Your task to perform on an android device: visit the assistant section in the google photos Image 0: 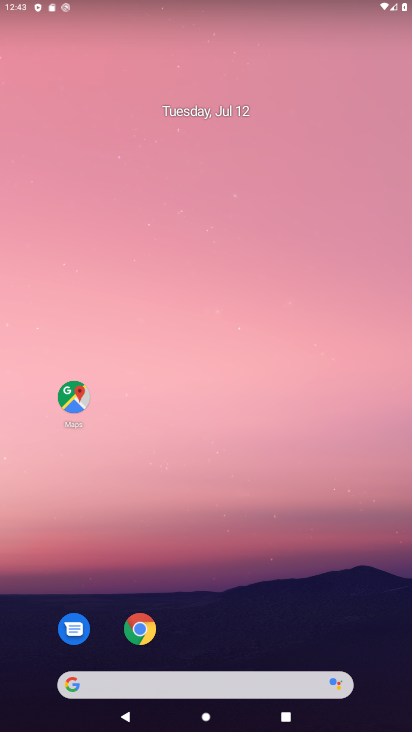
Step 0: press home button
Your task to perform on an android device: visit the assistant section in the google photos Image 1: 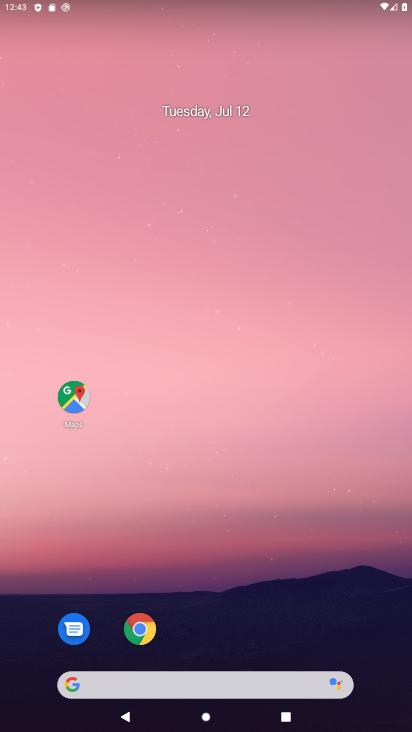
Step 1: drag from (216, 640) to (275, 0)
Your task to perform on an android device: visit the assistant section in the google photos Image 2: 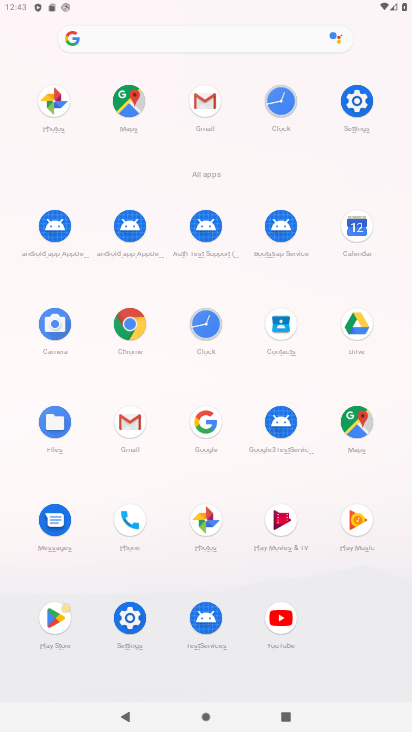
Step 2: click (203, 517)
Your task to perform on an android device: visit the assistant section in the google photos Image 3: 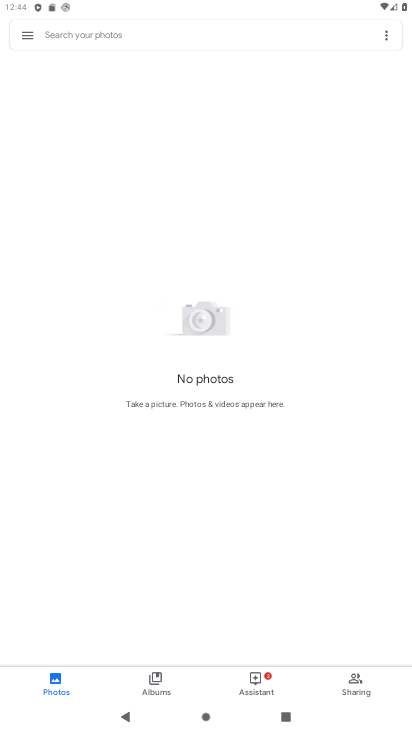
Step 3: click (249, 675)
Your task to perform on an android device: visit the assistant section in the google photos Image 4: 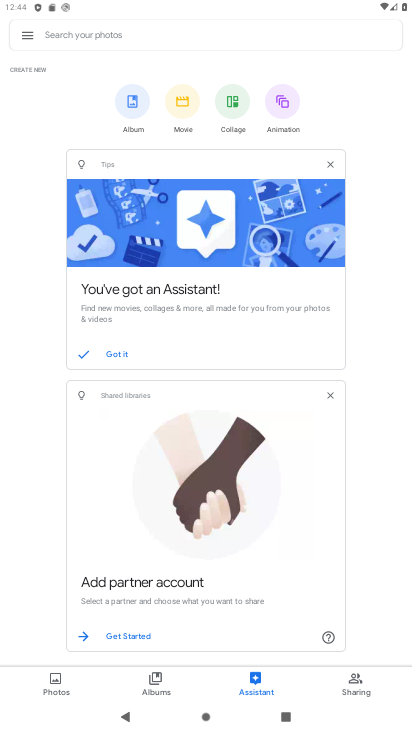
Step 4: task complete